Your task to perform on an android device: open the mobile data screen to see how much data has been used Image 0: 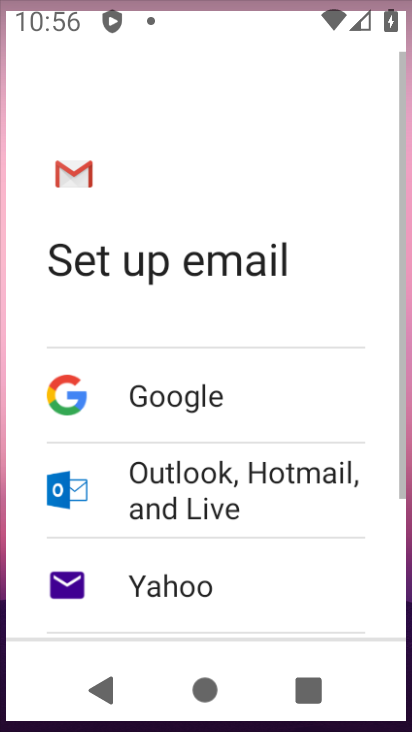
Step 0: drag from (245, 613) to (304, 613)
Your task to perform on an android device: open the mobile data screen to see how much data has been used Image 1: 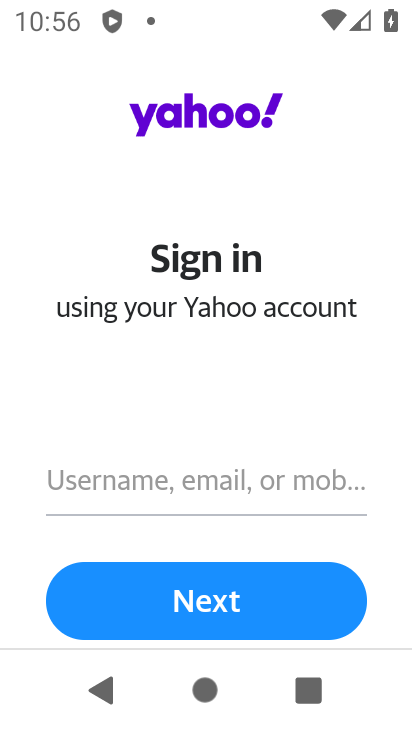
Step 1: press home button
Your task to perform on an android device: open the mobile data screen to see how much data has been used Image 2: 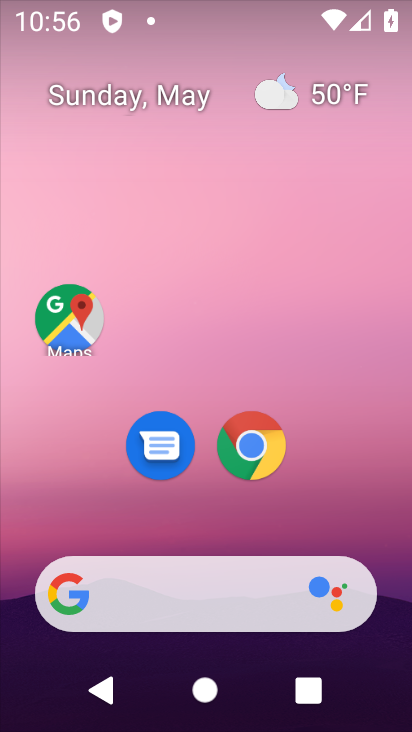
Step 2: drag from (181, 540) to (230, 68)
Your task to perform on an android device: open the mobile data screen to see how much data has been used Image 3: 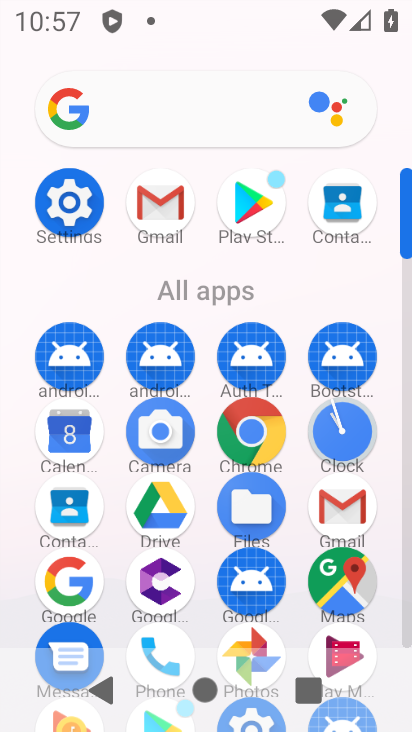
Step 3: click (65, 201)
Your task to perform on an android device: open the mobile data screen to see how much data has been used Image 4: 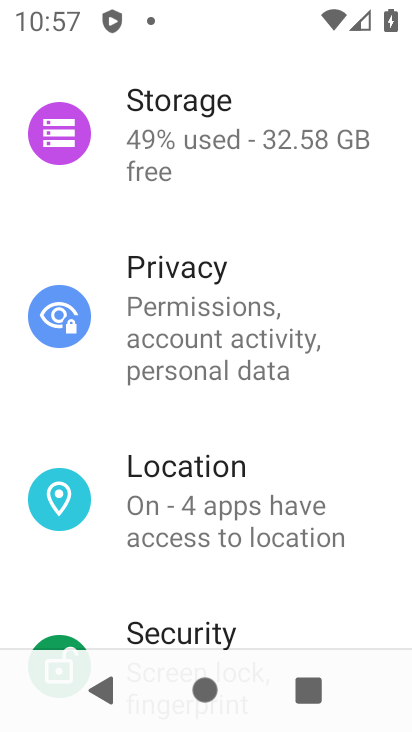
Step 4: drag from (182, 224) to (193, 387)
Your task to perform on an android device: open the mobile data screen to see how much data has been used Image 5: 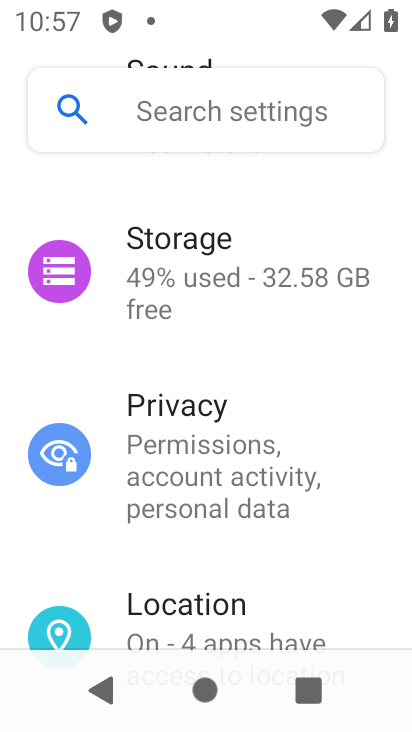
Step 5: drag from (196, 319) to (194, 620)
Your task to perform on an android device: open the mobile data screen to see how much data has been used Image 6: 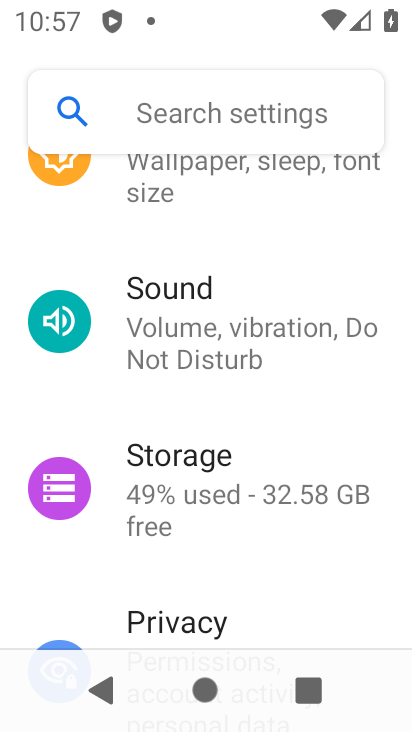
Step 6: drag from (229, 268) to (227, 600)
Your task to perform on an android device: open the mobile data screen to see how much data has been used Image 7: 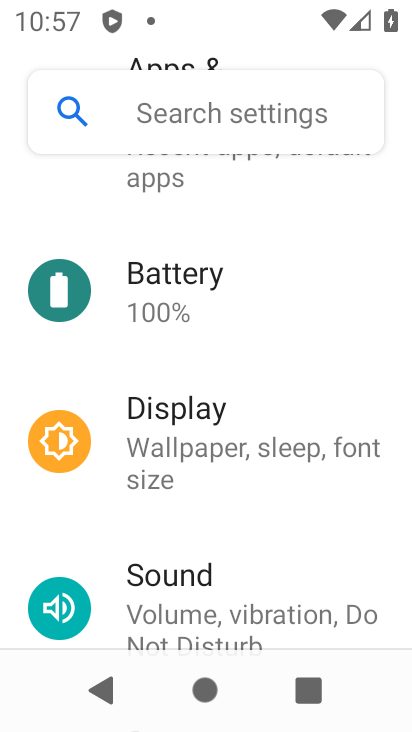
Step 7: drag from (228, 258) to (224, 655)
Your task to perform on an android device: open the mobile data screen to see how much data has been used Image 8: 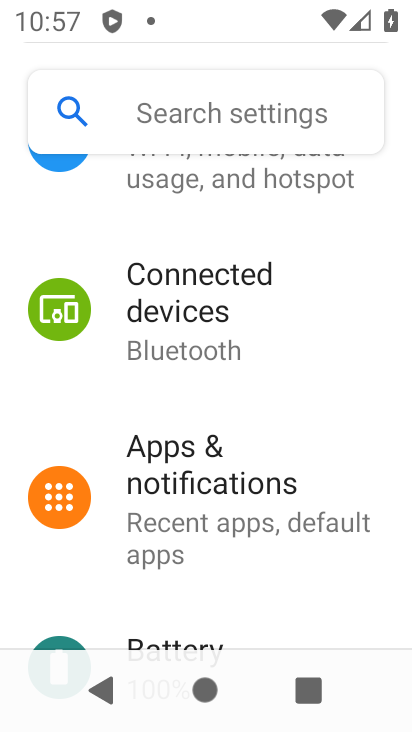
Step 8: drag from (228, 269) to (235, 498)
Your task to perform on an android device: open the mobile data screen to see how much data has been used Image 9: 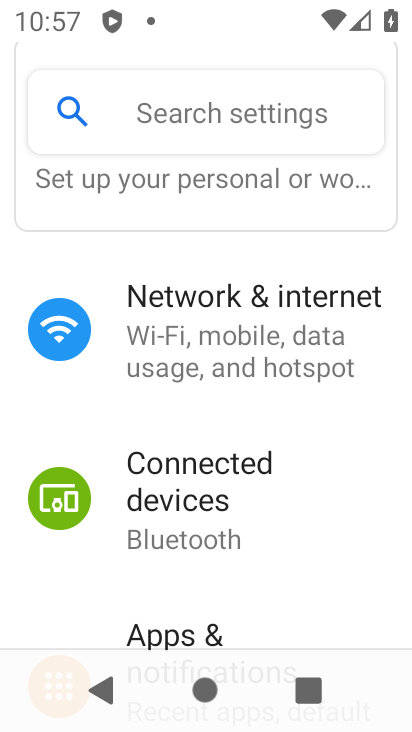
Step 9: click (218, 345)
Your task to perform on an android device: open the mobile data screen to see how much data has been used Image 10: 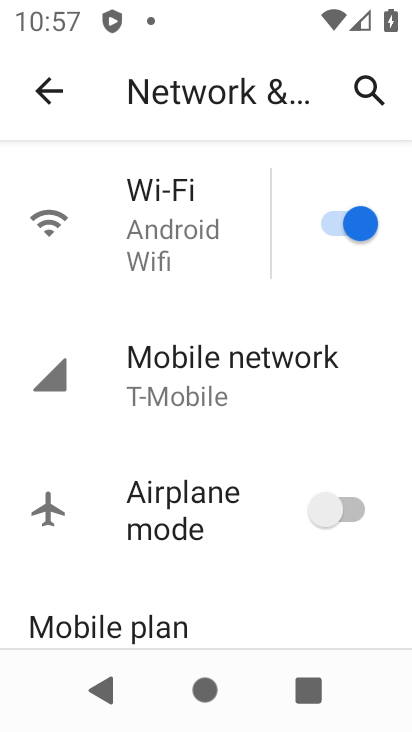
Step 10: drag from (232, 480) to (242, 330)
Your task to perform on an android device: open the mobile data screen to see how much data has been used Image 11: 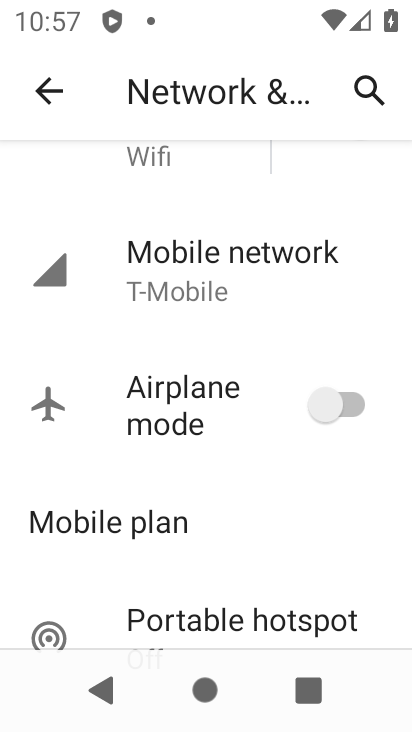
Step 11: click (210, 298)
Your task to perform on an android device: open the mobile data screen to see how much data has been used Image 12: 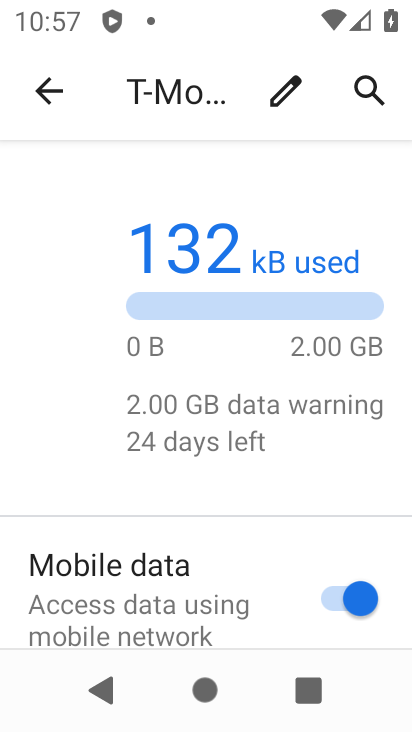
Step 12: task complete